Your task to perform on an android device: turn on notifications settings in the gmail app Image 0: 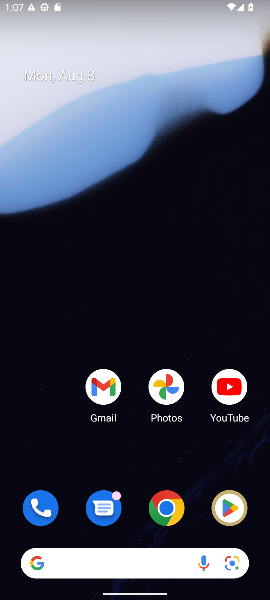
Step 0: click (103, 393)
Your task to perform on an android device: turn on notifications settings in the gmail app Image 1: 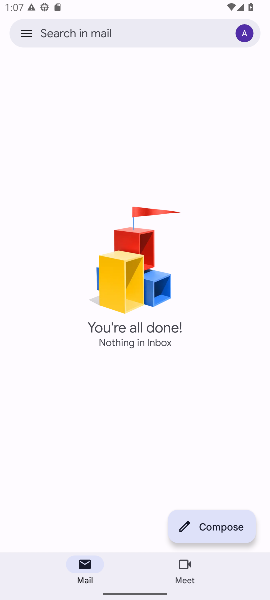
Step 1: click (24, 34)
Your task to perform on an android device: turn on notifications settings in the gmail app Image 2: 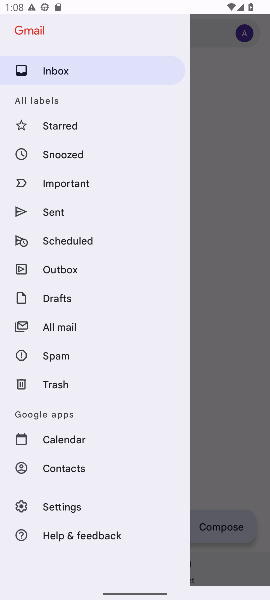
Step 2: click (78, 510)
Your task to perform on an android device: turn on notifications settings in the gmail app Image 3: 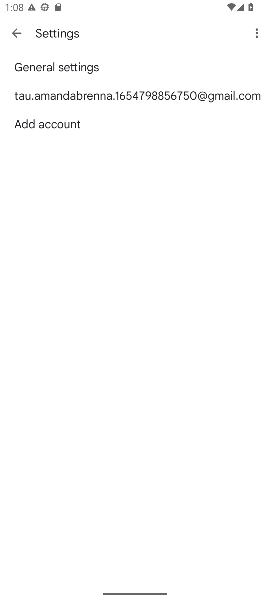
Step 3: click (71, 94)
Your task to perform on an android device: turn on notifications settings in the gmail app Image 4: 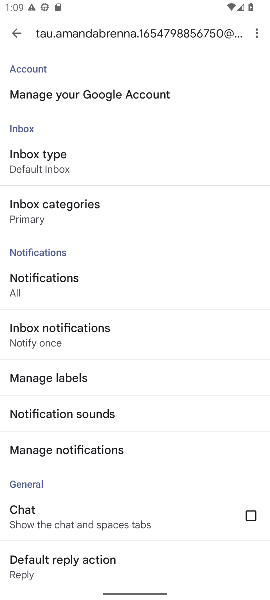
Step 4: click (54, 449)
Your task to perform on an android device: turn on notifications settings in the gmail app Image 5: 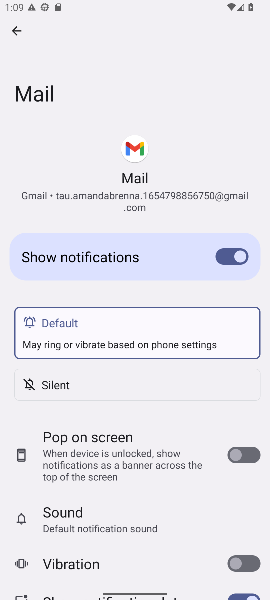
Step 5: task complete